Your task to perform on an android device: turn on improve location accuracy Image 0: 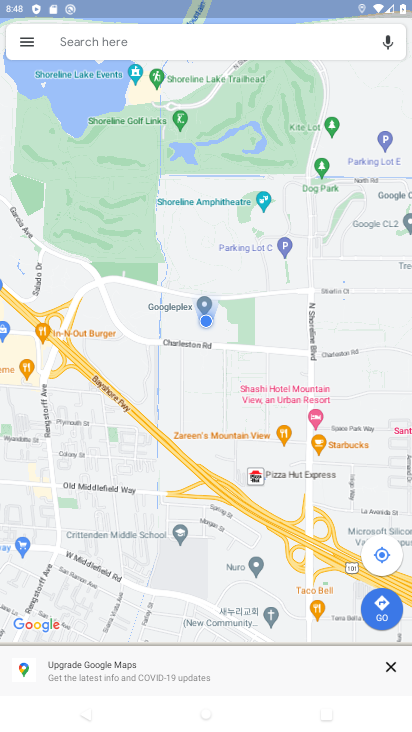
Step 0: press home button
Your task to perform on an android device: turn on improve location accuracy Image 1: 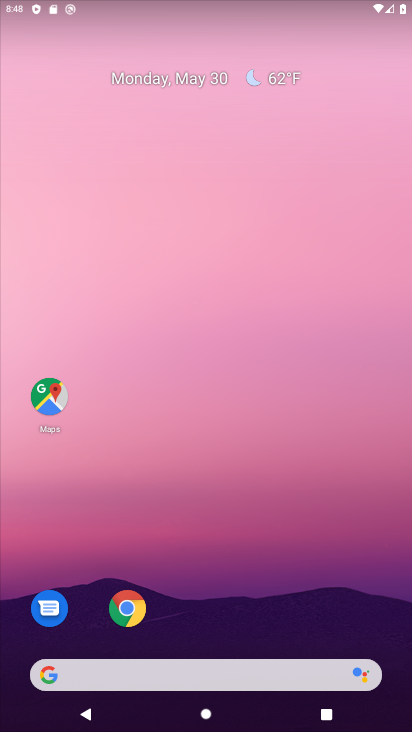
Step 1: drag from (209, 633) to (316, 214)
Your task to perform on an android device: turn on improve location accuracy Image 2: 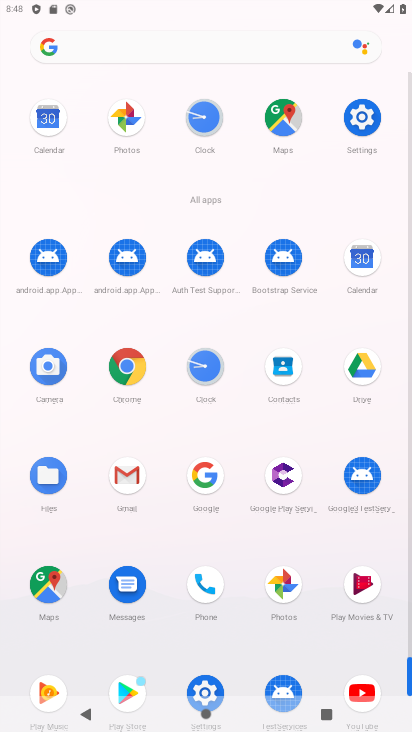
Step 2: click (210, 684)
Your task to perform on an android device: turn on improve location accuracy Image 3: 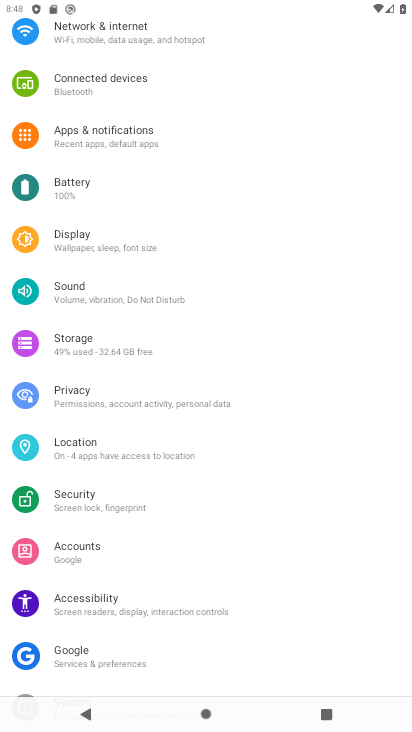
Step 3: click (126, 443)
Your task to perform on an android device: turn on improve location accuracy Image 4: 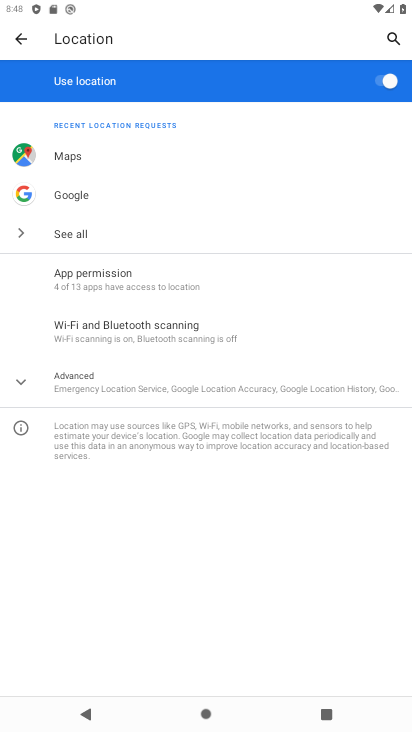
Step 4: click (161, 384)
Your task to perform on an android device: turn on improve location accuracy Image 5: 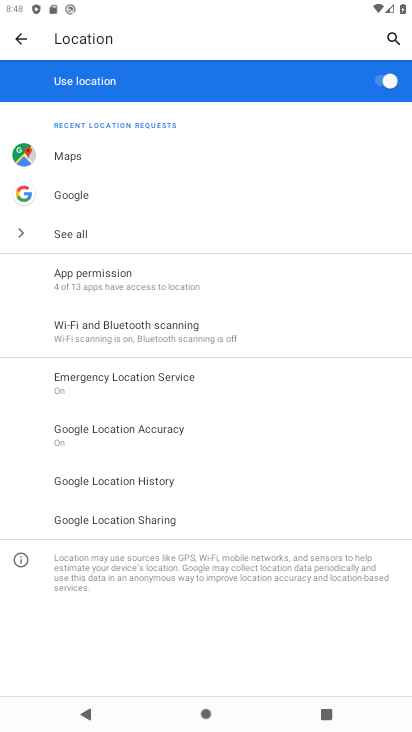
Step 5: click (199, 430)
Your task to perform on an android device: turn on improve location accuracy Image 6: 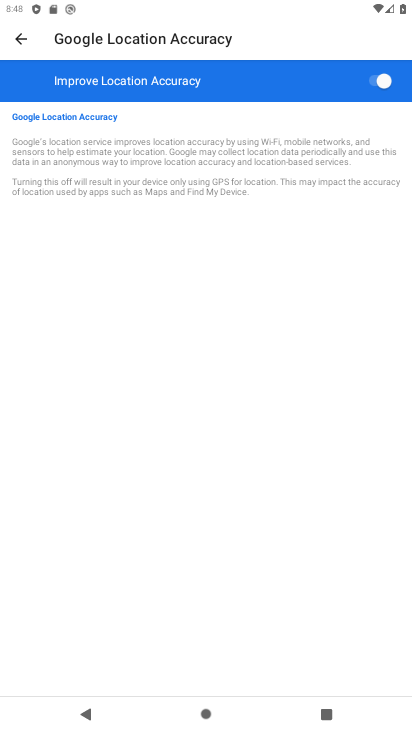
Step 6: task complete